Your task to perform on an android device: delete a single message in the gmail app Image 0: 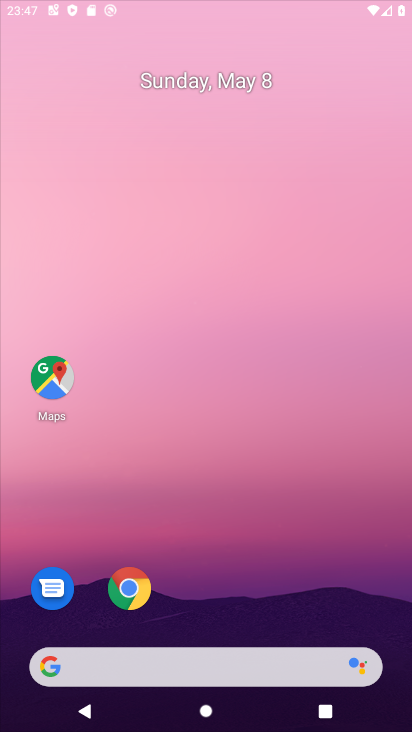
Step 0: click (178, 173)
Your task to perform on an android device: delete a single message in the gmail app Image 1: 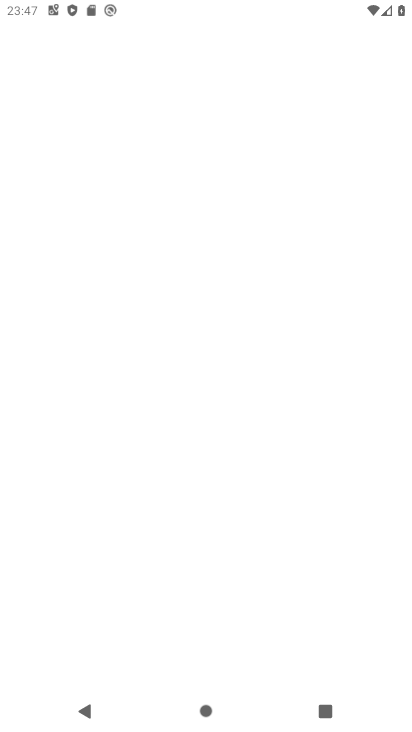
Step 1: drag from (246, 607) to (224, 103)
Your task to perform on an android device: delete a single message in the gmail app Image 2: 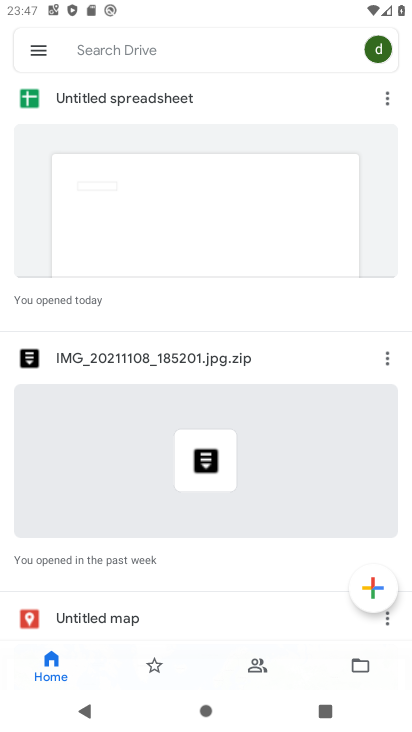
Step 2: press home button
Your task to perform on an android device: delete a single message in the gmail app Image 3: 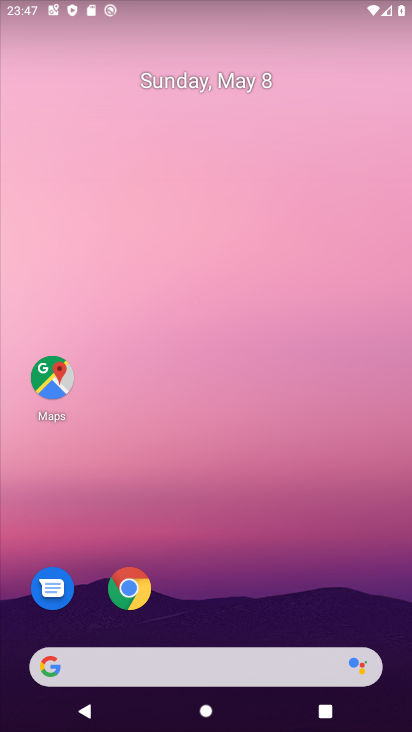
Step 3: drag from (263, 563) to (128, 41)
Your task to perform on an android device: delete a single message in the gmail app Image 4: 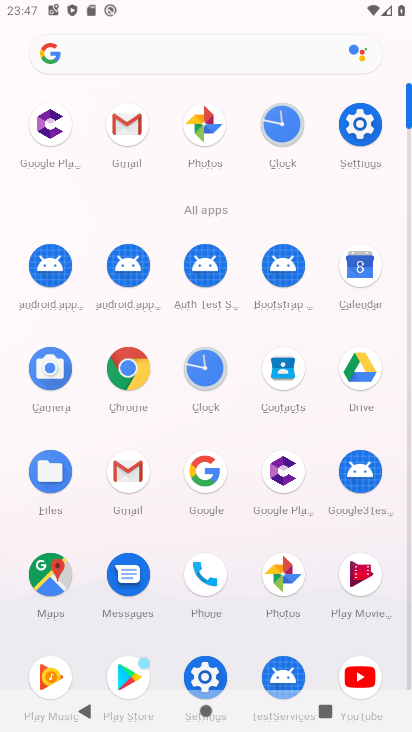
Step 4: click (126, 129)
Your task to perform on an android device: delete a single message in the gmail app Image 5: 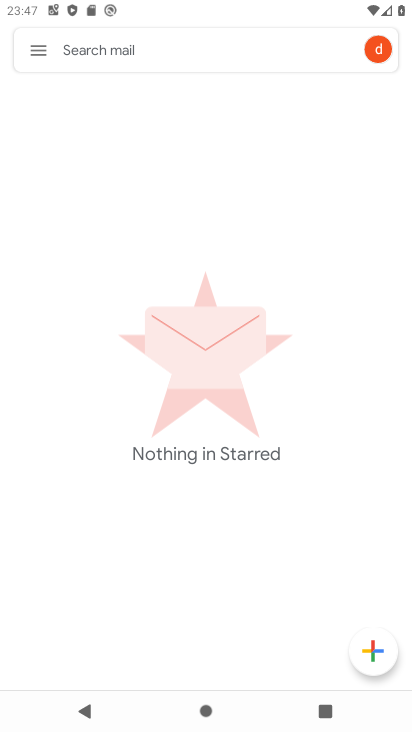
Step 5: click (36, 49)
Your task to perform on an android device: delete a single message in the gmail app Image 6: 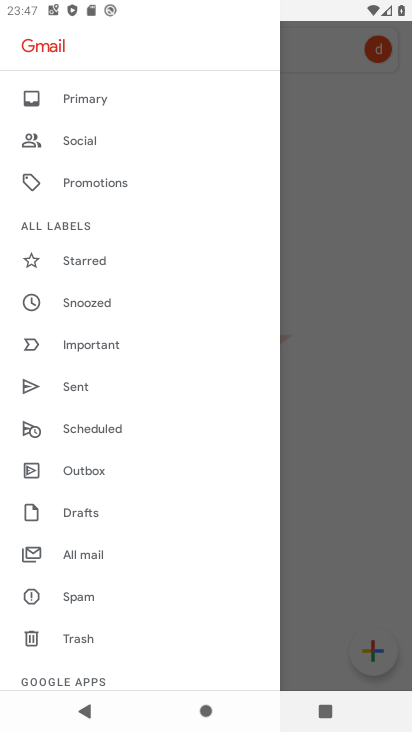
Step 6: click (83, 555)
Your task to perform on an android device: delete a single message in the gmail app Image 7: 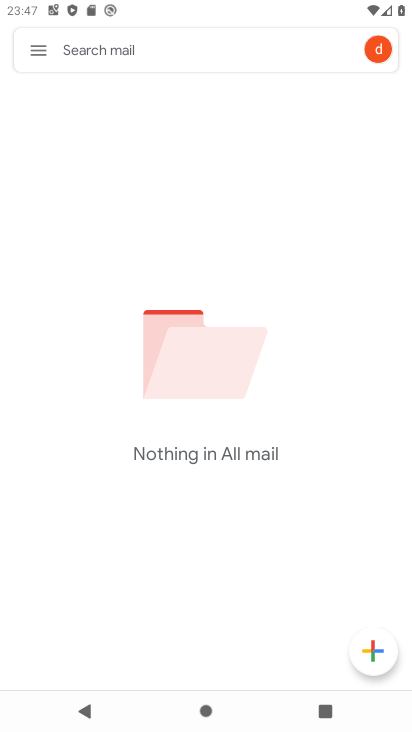
Step 7: task complete